Your task to perform on an android device: turn vacation reply on in the gmail app Image 0: 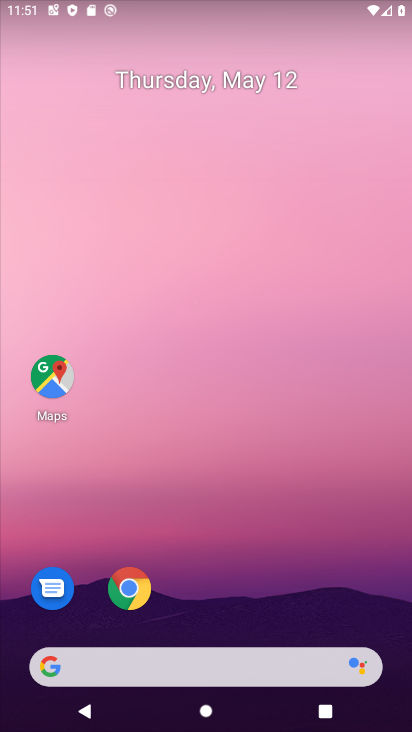
Step 0: drag from (233, 592) to (259, 188)
Your task to perform on an android device: turn vacation reply on in the gmail app Image 1: 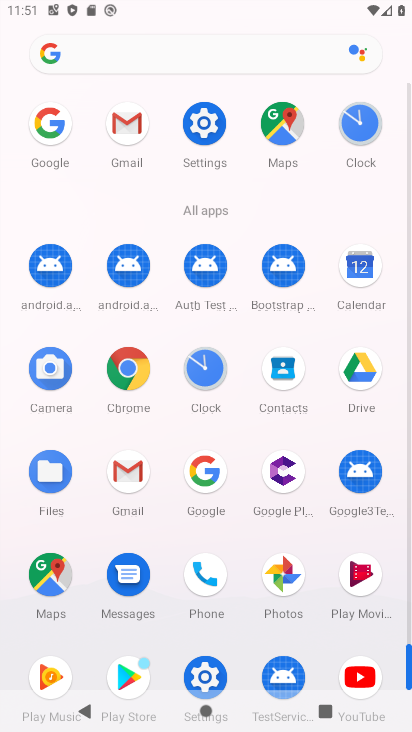
Step 1: click (135, 484)
Your task to perform on an android device: turn vacation reply on in the gmail app Image 2: 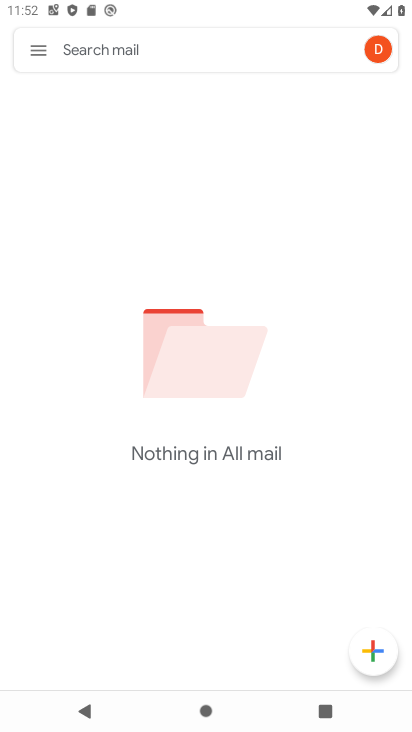
Step 2: click (30, 58)
Your task to perform on an android device: turn vacation reply on in the gmail app Image 3: 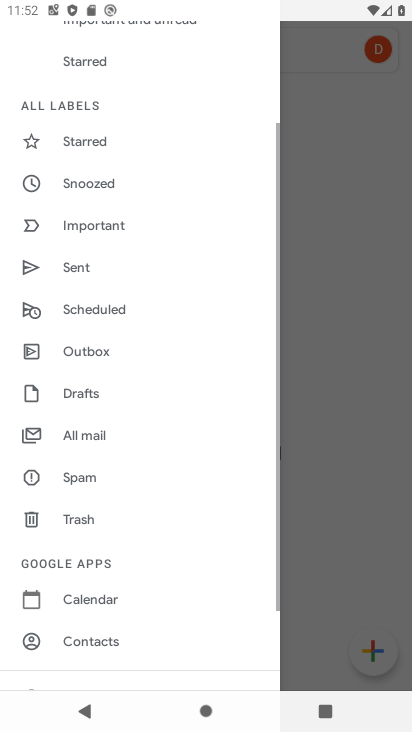
Step 3: drag from (105, 220) to (98, 433)
Your task to perform on an android device: turn vacation reply on in the gmail app Image 4: 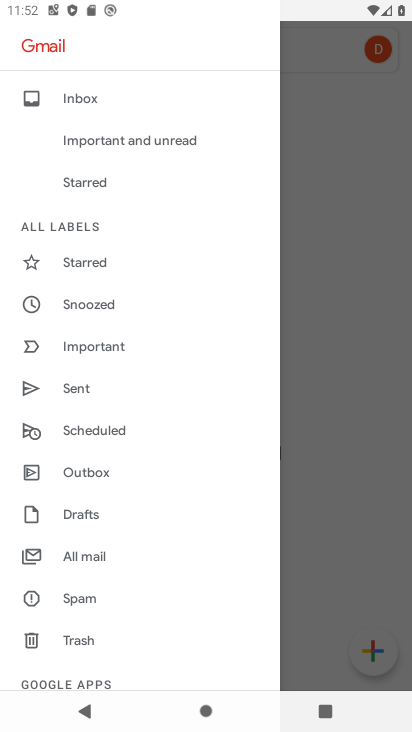
Step 4: drag from (109, 312) to (90, 498)
Your task to perform on an android device: turn vacation reply on in the gmail app Image 5: 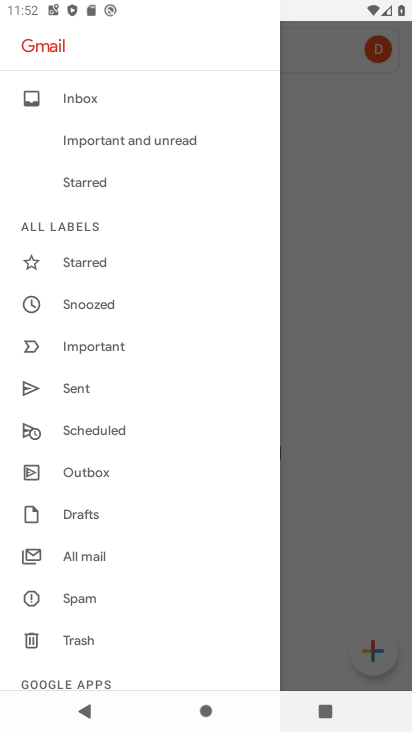
Step 5: drag from (82, 586) to (152, 314)
Your task to perform on an android device: turn vacation reply on in the gmail app Image 6: 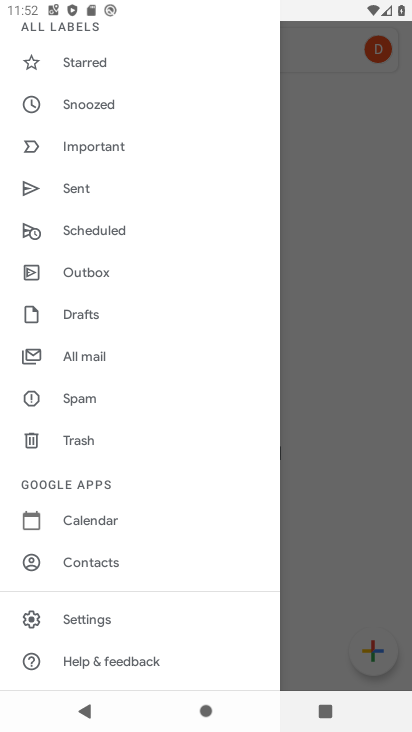
Step 6: click (101, 608)
Your task to perform on an android device: turn vacation reply on in the gmail app Image 7: 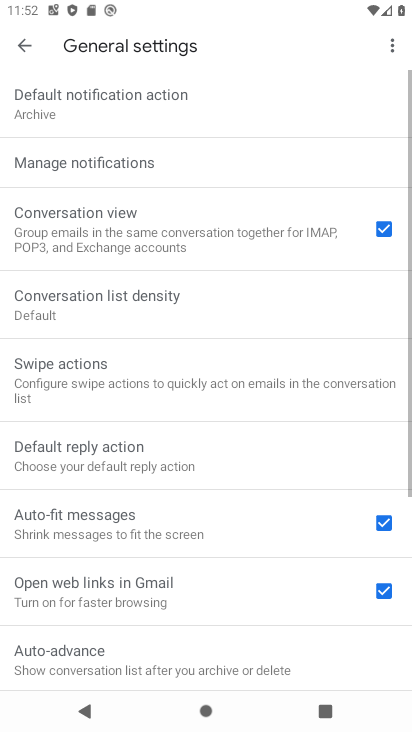
Step 7: drag from (126, 485) to (187, 207)
Your task to perform on an android device: turn vacation reply on in the gmail app Image 8: 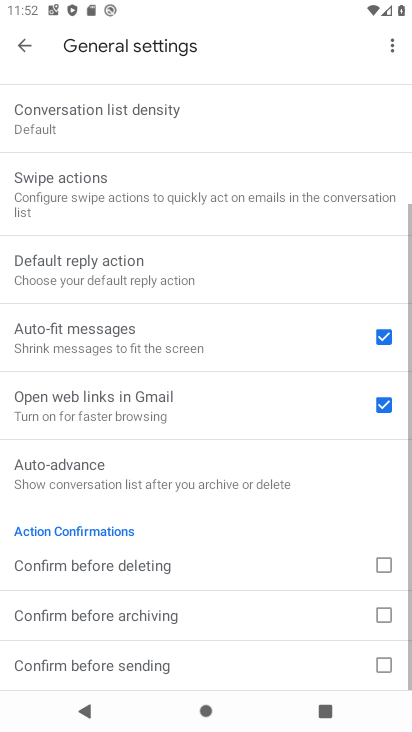
Step 8: click (26, 50)
Your task to perform on an android device: turn vacation reply on in the gmail app Image 9: 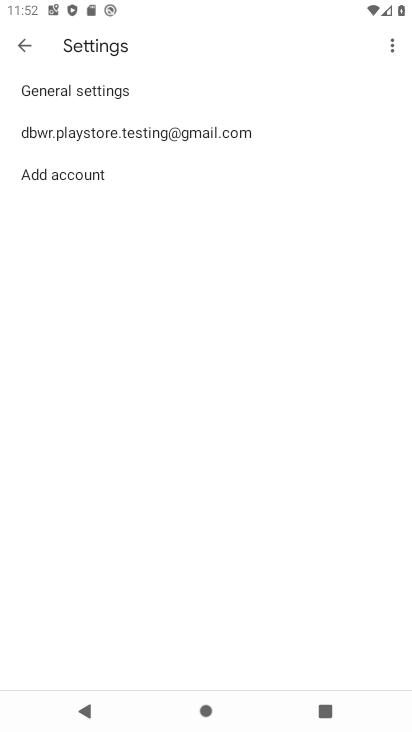
Step 9: click (120, 129)
Your task to perform on an android device: turn vacation reply on in the gmail app Image 10: 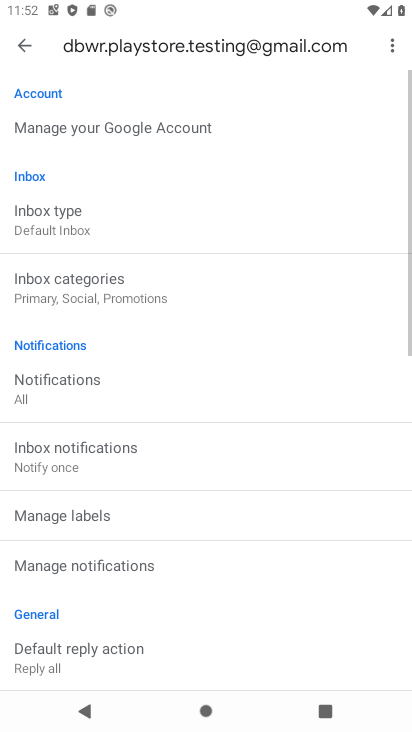
Step 10: drag from (114, 465) to (169, 146)
Your task to perform on an android device: turn vacation reply on in the gmail app Image 11: 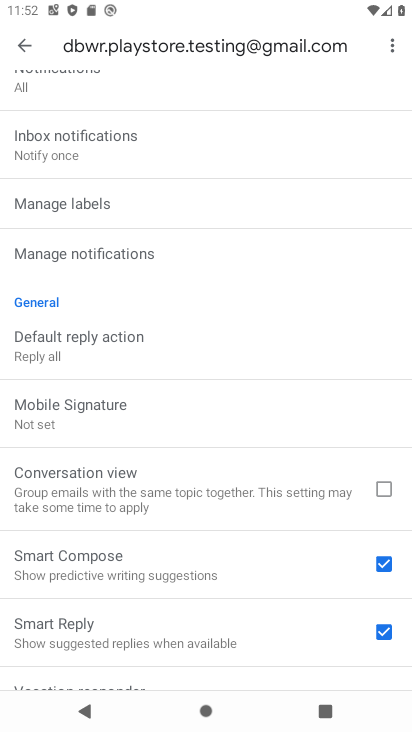
Step 11: drag from (158, 512) to (178, 212)
Your task to perform on an android device: turn vacation reply on in the gmail app Image 12: 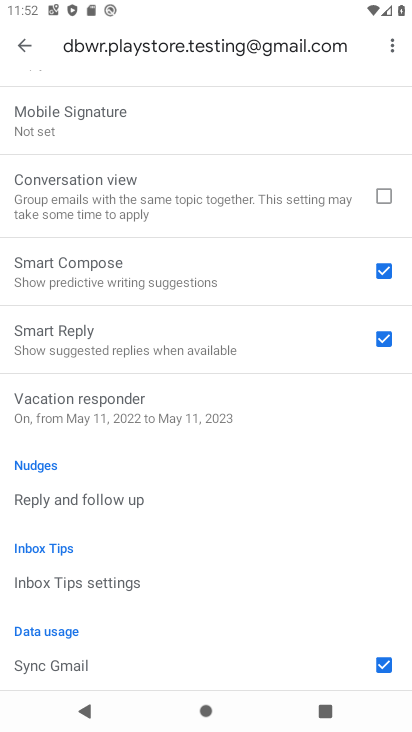
Step 12: click (171, 412)
Your task to perform on an android device: turn vacation reply on in the gmail app Image 13: 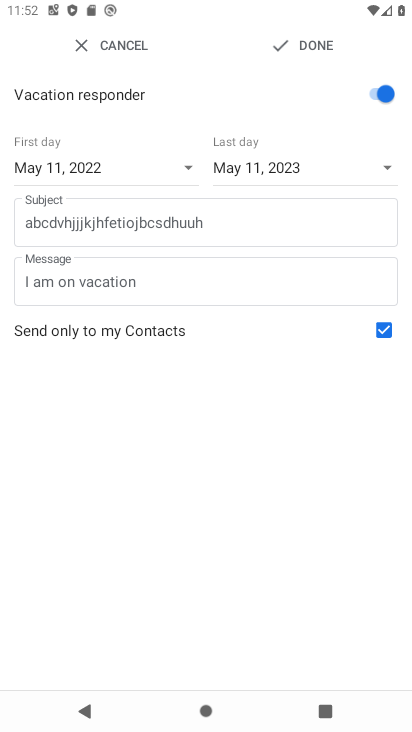
Step 13: task complete